Your task to perform on an android device: turn on the 12-hour format for clock Image 0: 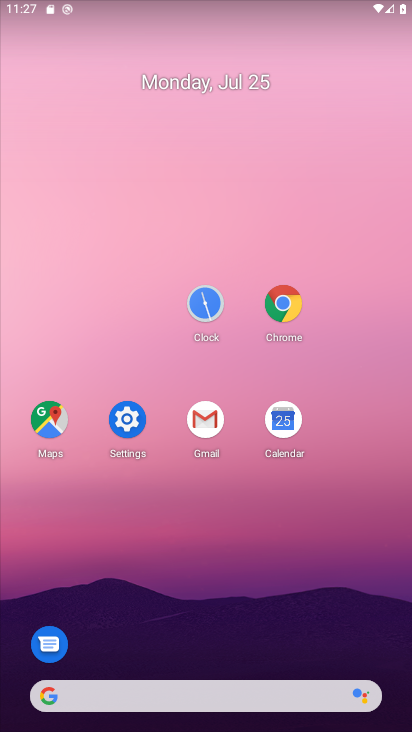
Step 0: click (288, 304)
Your task to perform on an android device: turn on the 12-hour format for clock Image 1: 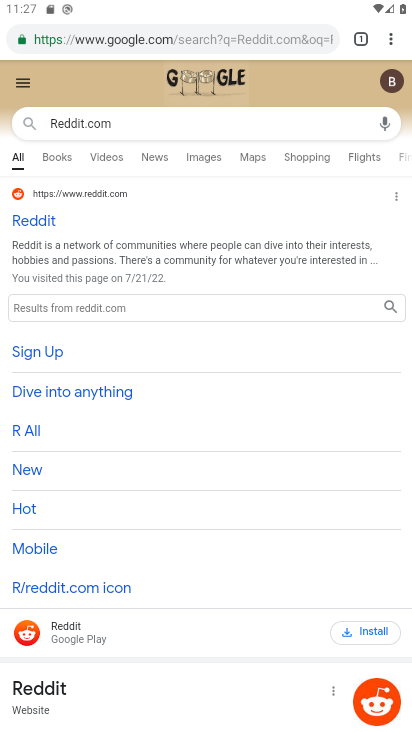
Step 1: press home button
Your task to perform on an android device: turn on the 12-hour format for clock Image 2: 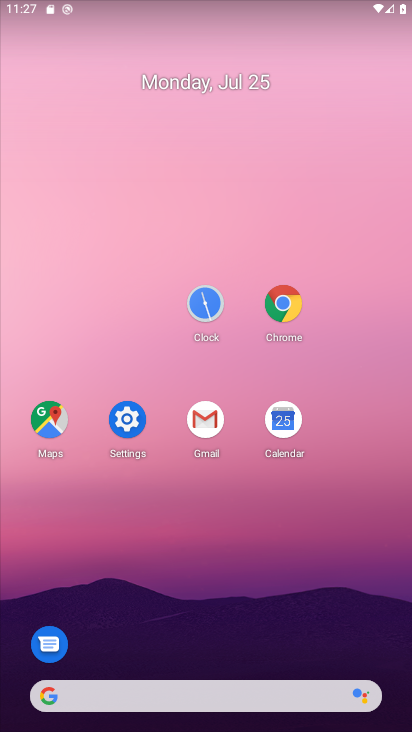
Step 2: click (208, 307)
Your task to perform on an android device: turn on the 12-hour format for clock Image 3: 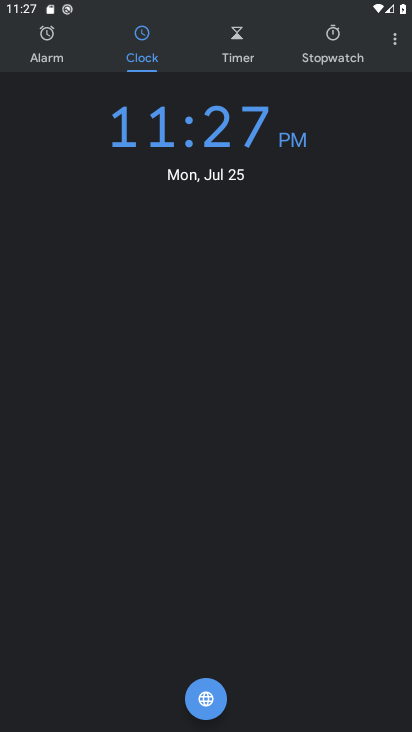
Step 3: click (394, 44)
Your task to perform on an android device: turn on the 12-hour format for clock Image 4: 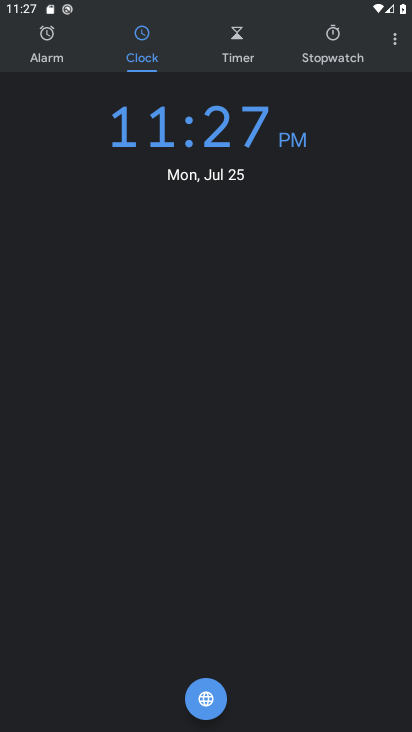
Step 4: click (394, 41)
Your task to perform on an android device: turn on the 12-hour format for clock Image 5: 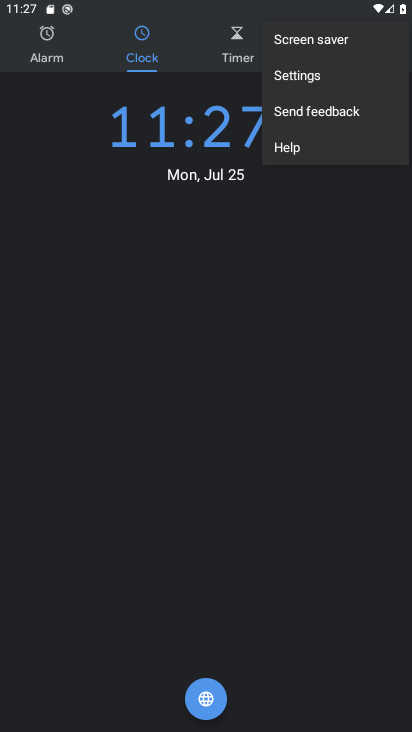
Step 5: click (306, 73)
Your task to perform on an android device: turn on the 12-hour format for clock Image 6: 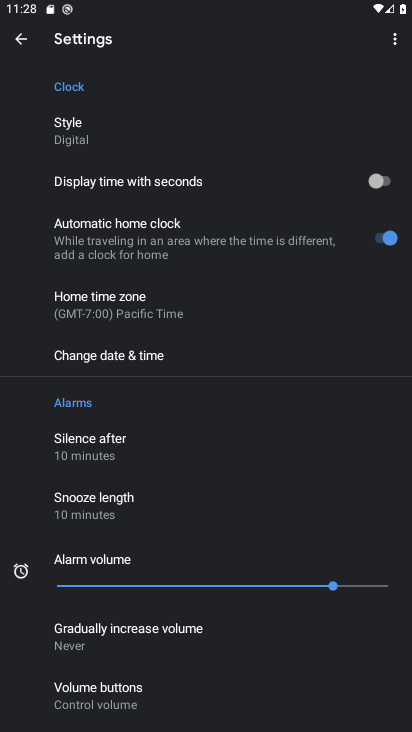
Step 6: click (59, 358)
Your task to perform on an android device: turn on the 12-hour format for clock Image 7: 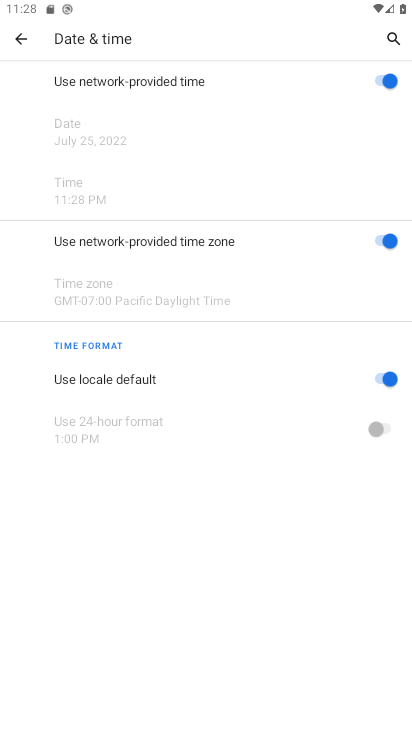
Step 7: task complete